Your task to perform on an android device: add a contact in the contacts app Image 0: 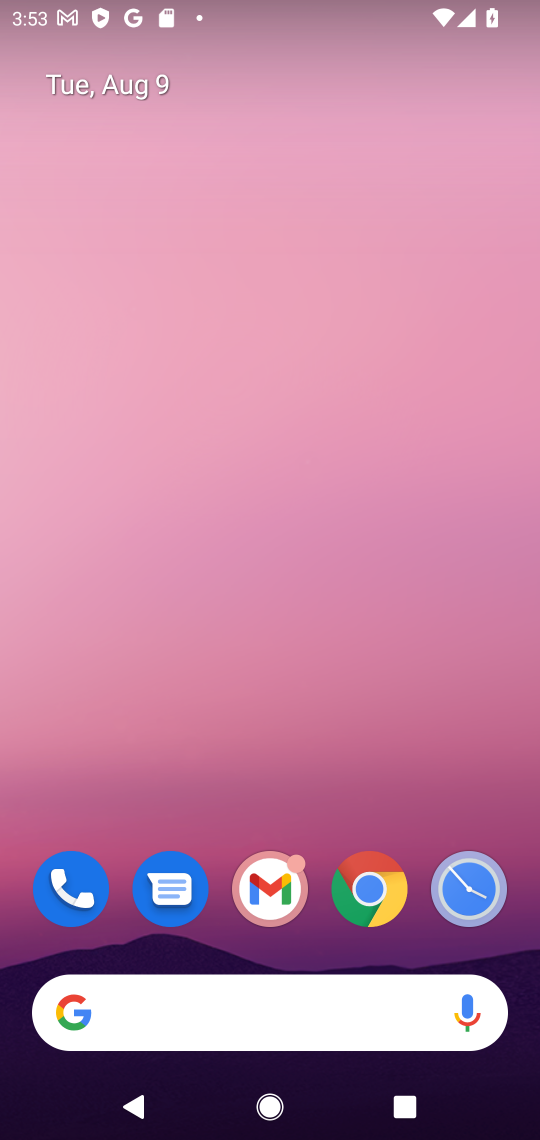
Step 0: drag from (361, 735) to (439, 23)
Your task to perform on an android device: add a contact in the contacts app Image 1: 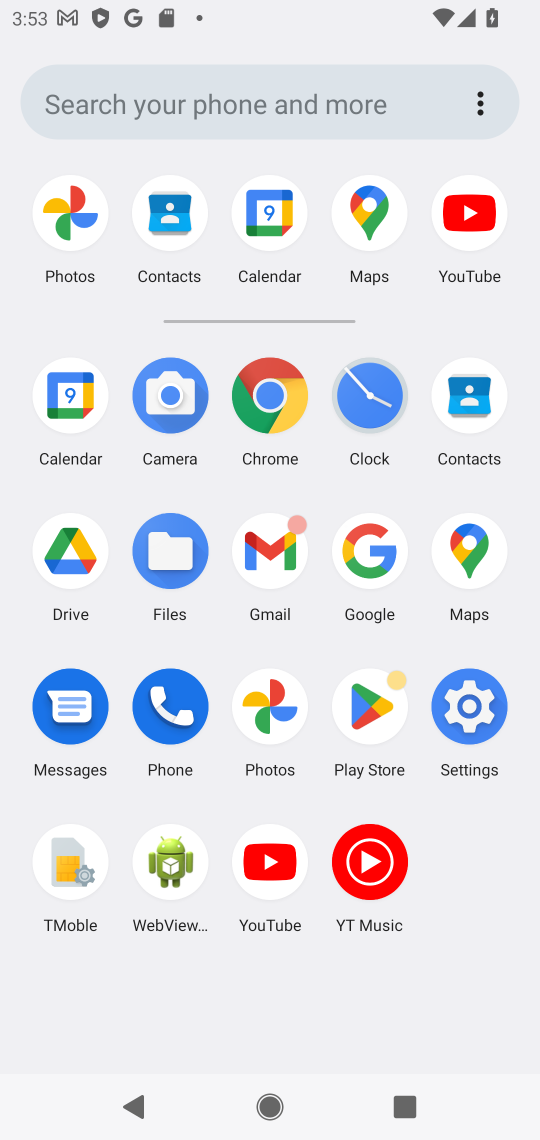
Step 1: click (469, 383)
Your task to perform on an android device: add a contact in the contacts app Image 2: 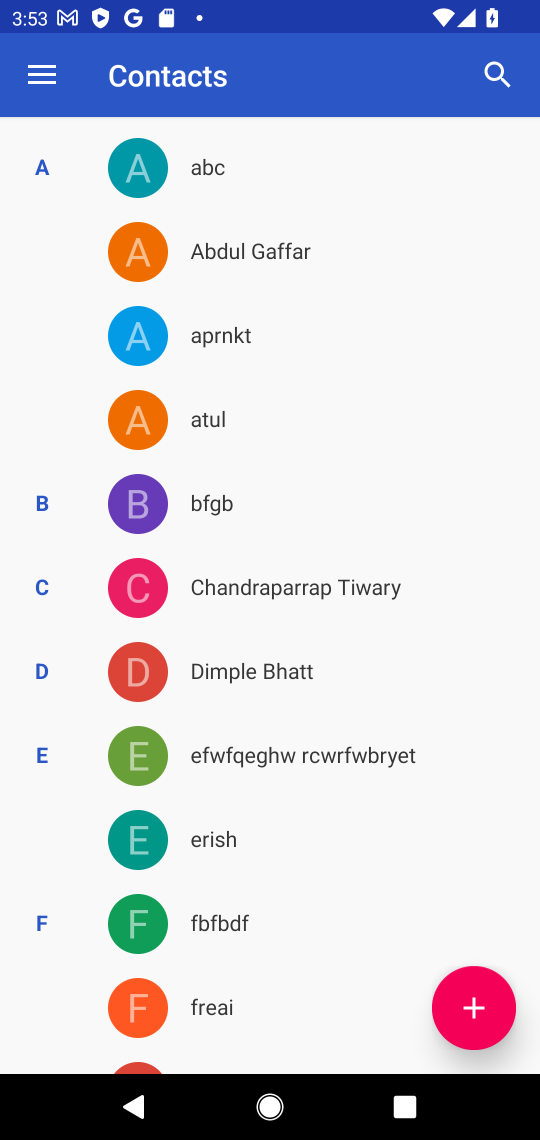
Step 2: click (491, 998)
Your task to perform on an android device: add a contact in the contacts app Image 3: 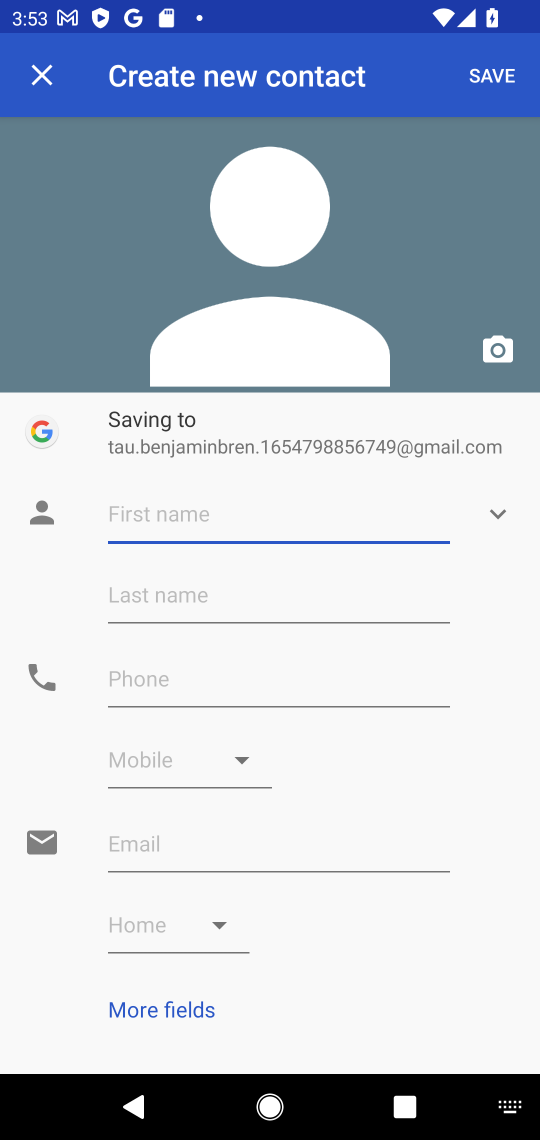
Step 3: type "Abha"
Your task to perform on an android device: add a contact in the contacts app Image 4: 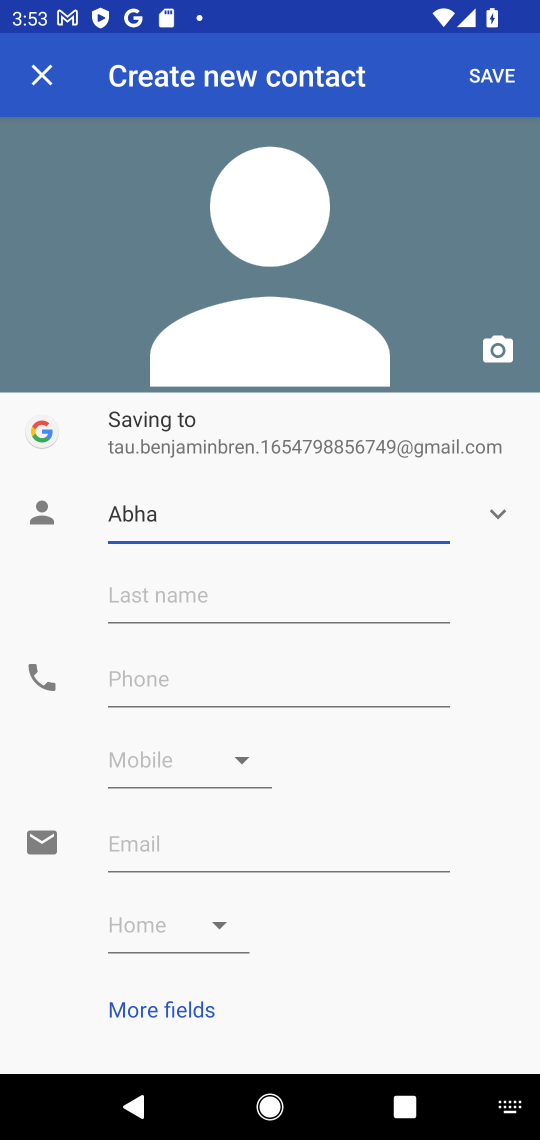
Step 4: click (315, 679)
Your task to perform on an android device: add a contact in the contacts app Image 5: 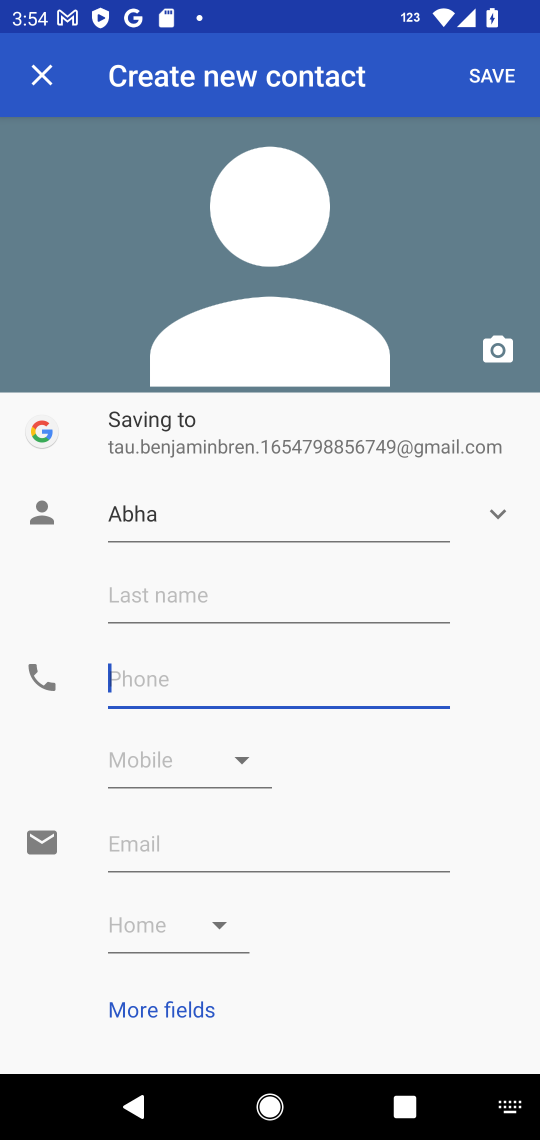
Step 5: type "+919999775533"
Your task to perform on an android device: add a contact in the contacts app Image 6: 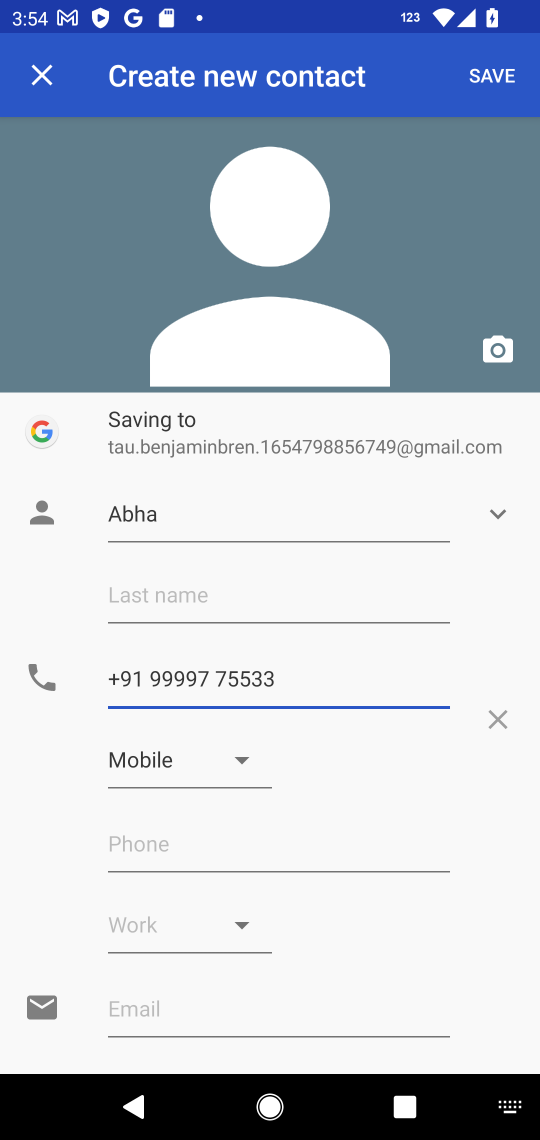
Step 6: click (494, 78)
Your task to perform on an android device: add a contact in the contacts app Image 7: 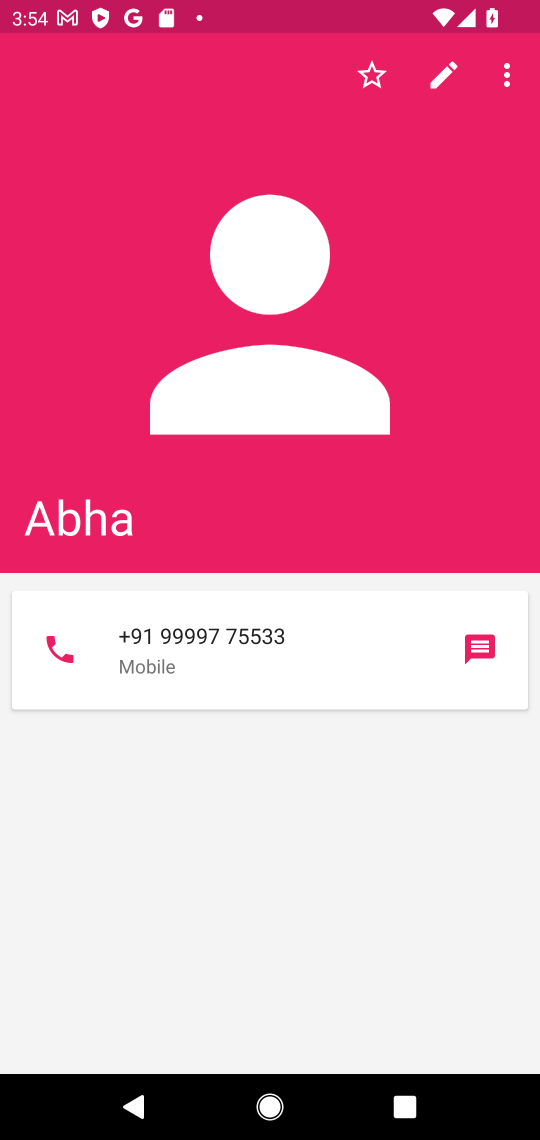
Step 7: task complete